Your task to perform on an android device: star an email in the gmail app Image 0: 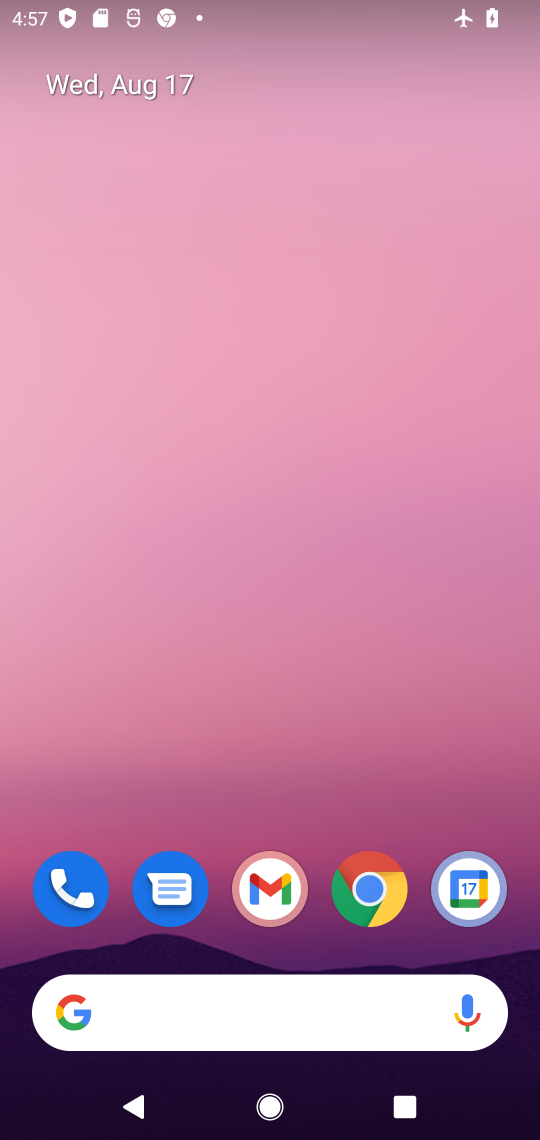
Step 0: click (274, 896)
Your task to perform on an android device: star an email in the gmail app Image 1: 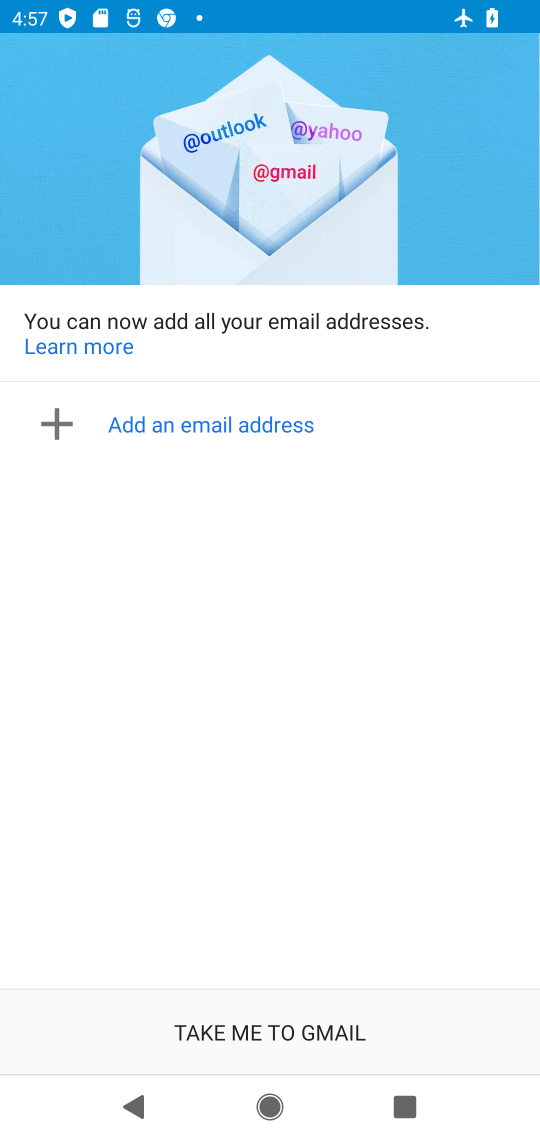
Step 1: click (247, 1028)
Your task to perform on an android device: star an email in the gmail app Image 2: 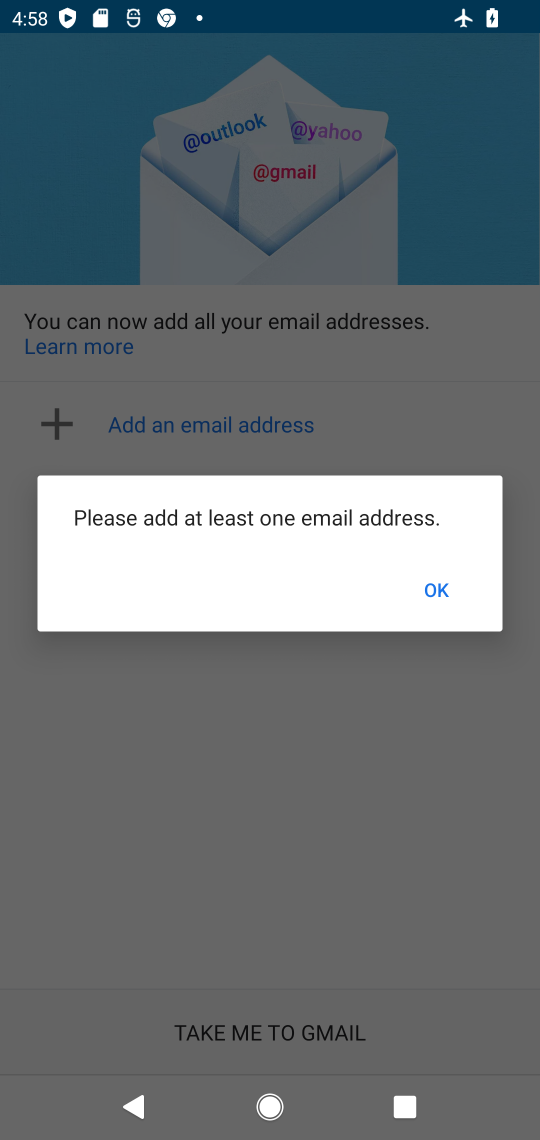
Step 2: click (436, 593)
Your task to perform on an android device: star an email in the gmail app Image 3: 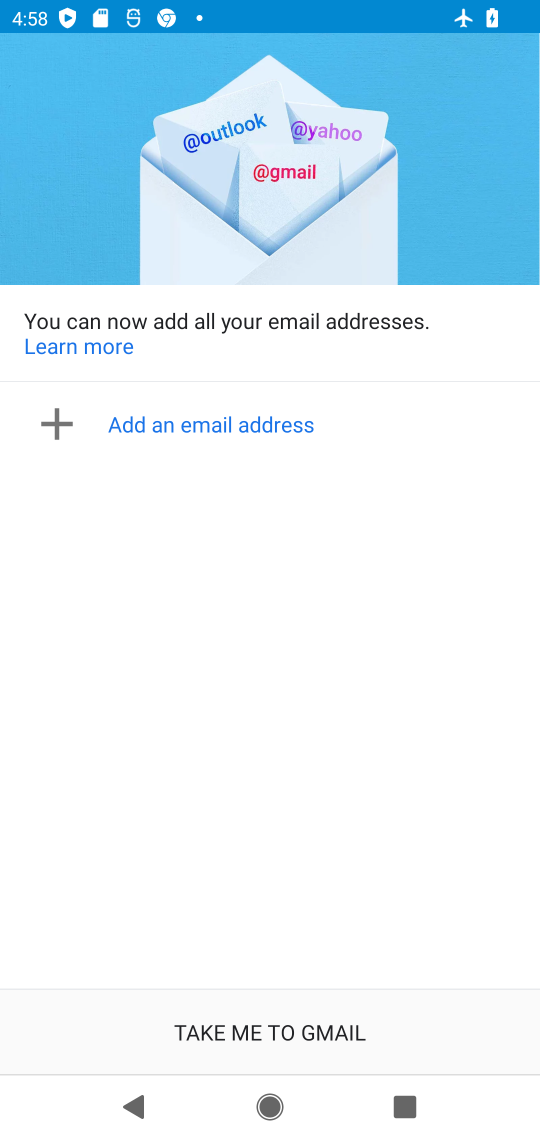
Step 3: task complete